Your task to perform on an android device: turn off data saver in the chrome app Image 0: 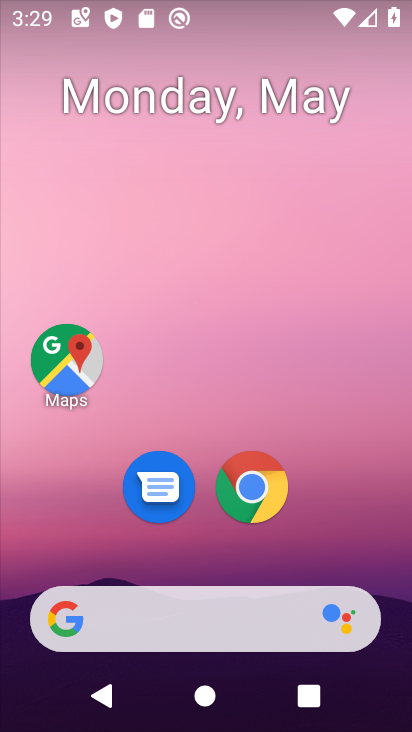
Step 0: click (260, 492)
Your task to perform on an android device: turn off data saver in the chrome app Image 1: 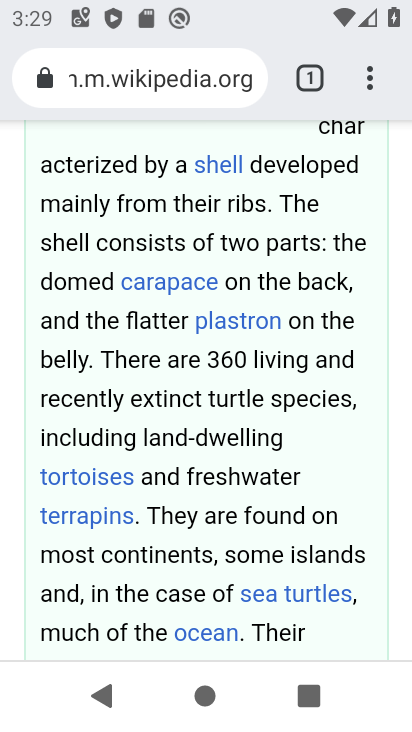
Step 1: click (368, 91)
Your task to perform on an android device: turn off data saver in the chrome app Image 2: 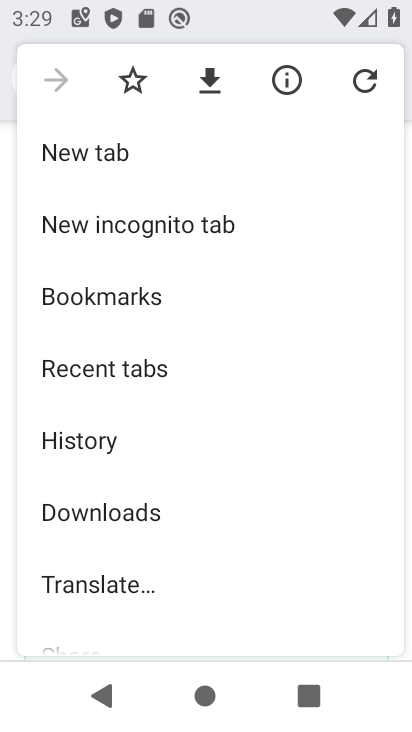
Step 2: drag from (149, 607) to (203, 254)
Your task to perform on an android device: turn off data saver in the chrome app Image 3: 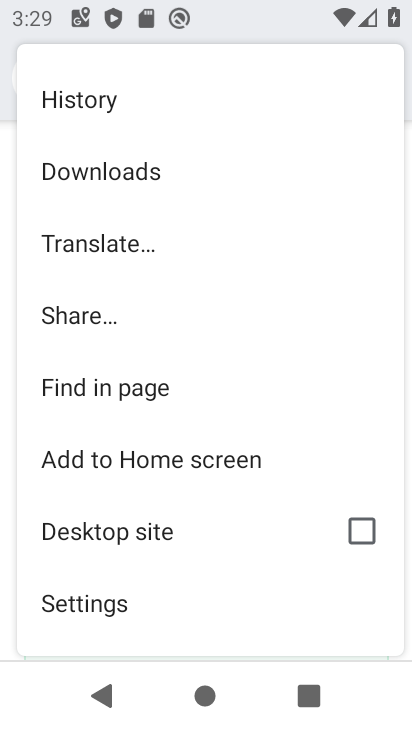
Step 3: click (81, 601)
Your task to perform on an android device: turn off data saver in the chrome app Image 4: 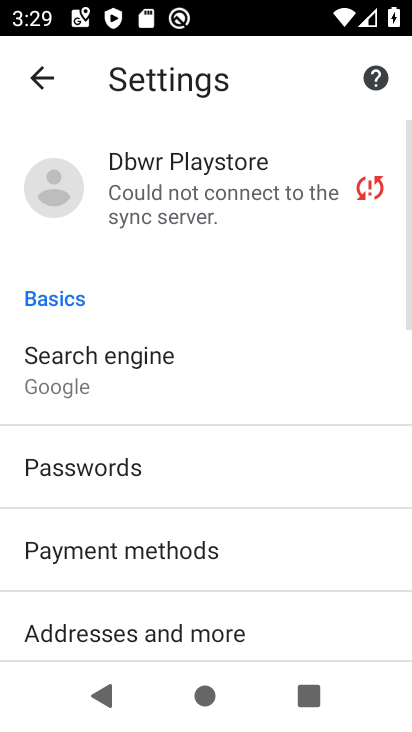
Step 4: drag from (128, 656) to (224, 310)
Your task to perform on an android device: turn off data saver in the chrome app Image 5: 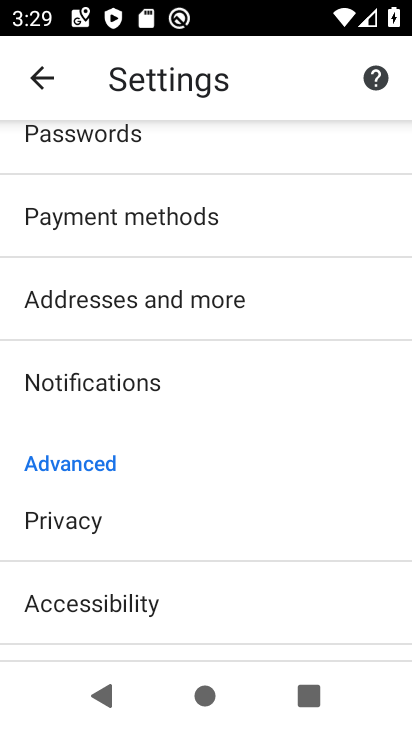
Step 5: drag from (106, 624) to (160, 344)
Your task to perform on an android device: turn off data saver in the chrome app Image 6: 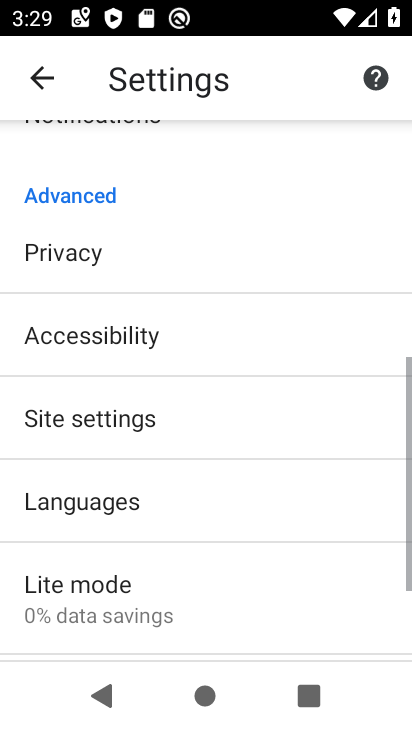
Step 6: click (123, 602)
Your task to perform on an android device: turn off data saver in the chrome app Image 7: 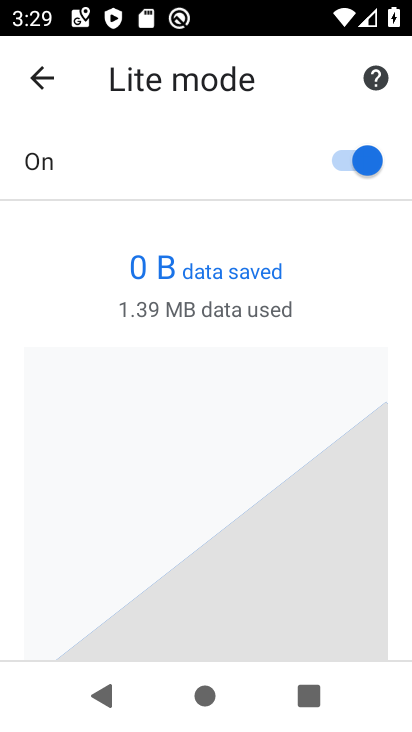
Step 7: click (357, 159)
Your task to perform on an android device: turn off data saver in the chrome app Image 8: 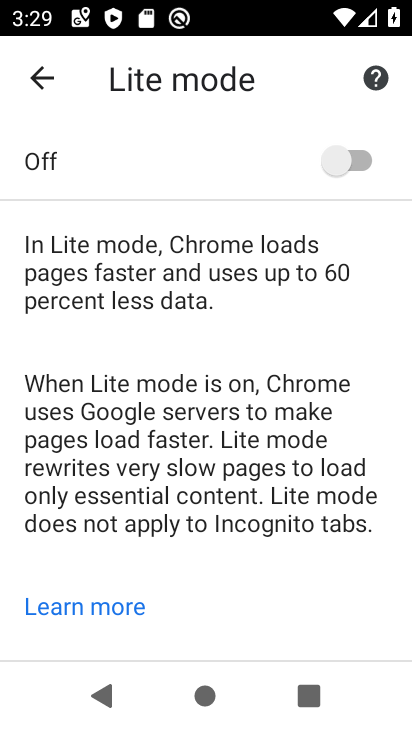
Step 8: task complete